Your task to perform on an android device: check storage Image 0: 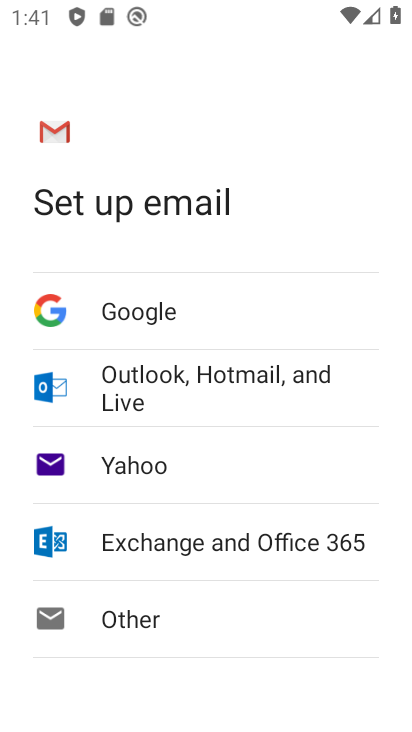
Step 0: press home button
Your task to perform on an android device: check storage Image 1: 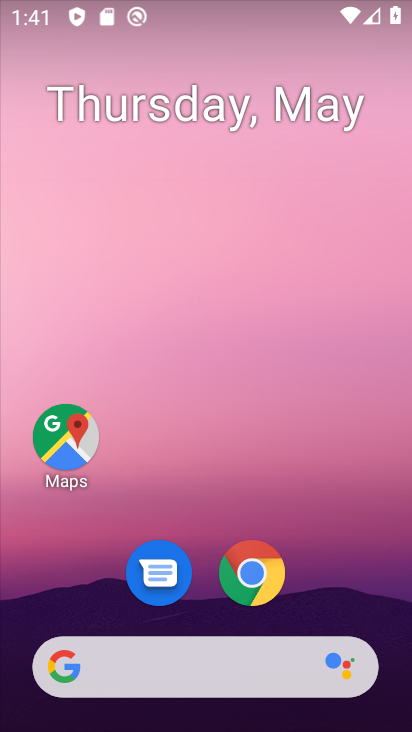
Step 1: drag from (208, 612) to (195, 129)
Your task to perform on an android device: check storage Image 2: 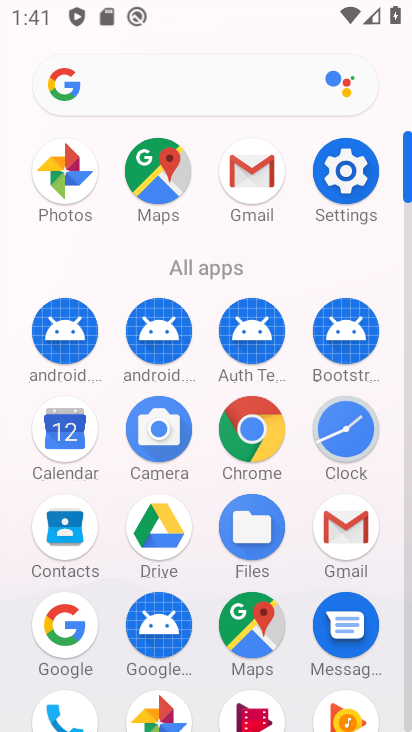
Step 2: click (347, 132)
Your task to perform on an android device: check storage Image 3: 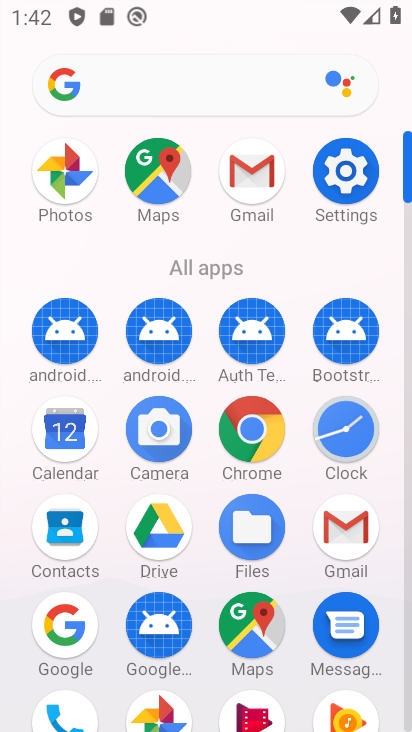
Step 3: click (347, 177)
Your task to perform on an android device: check storage Image 4: 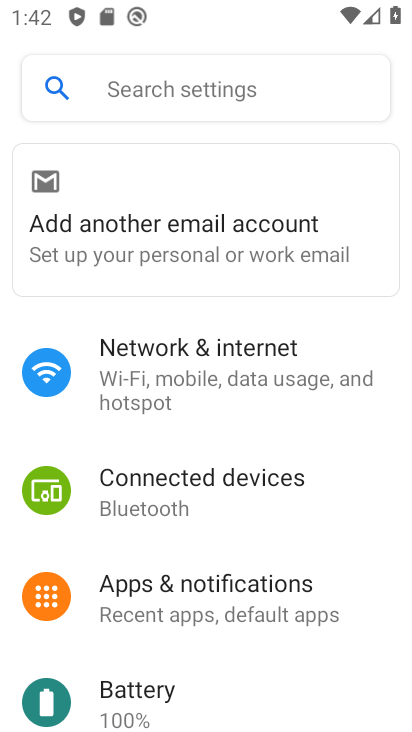
Step 4: drag from (123, 637) to (116, 106)
Your task to perform on an android device: check storage Image 5: 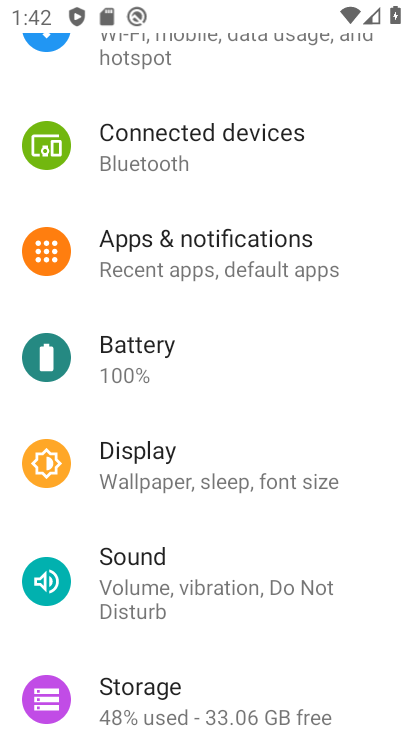
Step 5: click (72, 718)
Your task to perform on an android device: check storage Image 6: 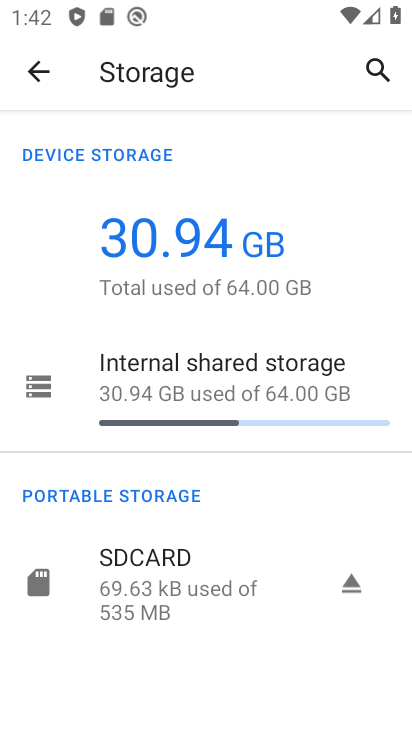
Step 6: task complete